Your task to perform on an android device: Check the weather Image 0: 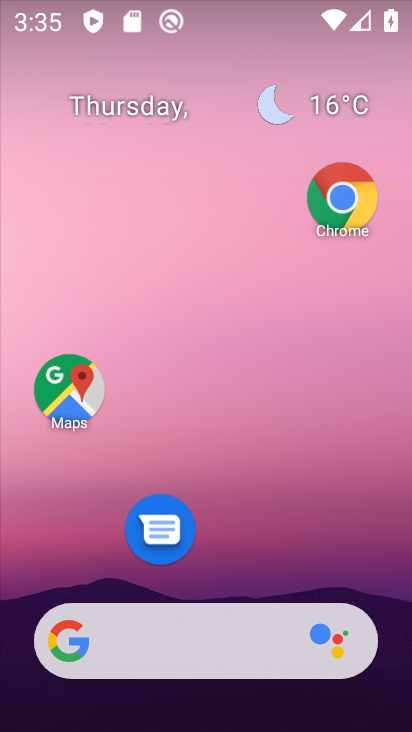
Step 0: drag from (221, 607) to (259, 415)
Your task to perform on an android device: Check the weather Image 1: 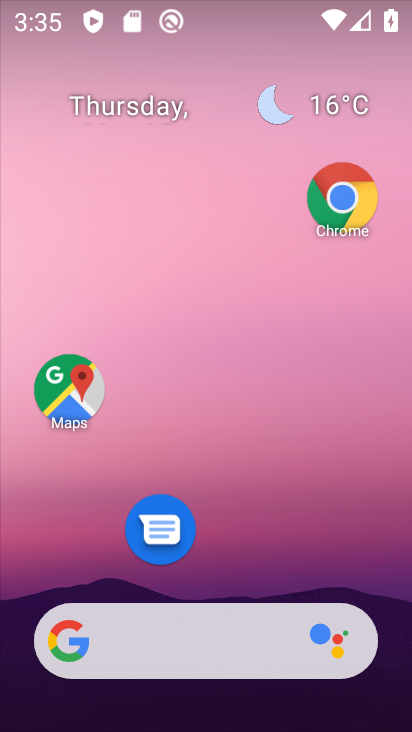
Step 1: click (234, 619)
Your task to perform on an android device: Check the weather Image 2: 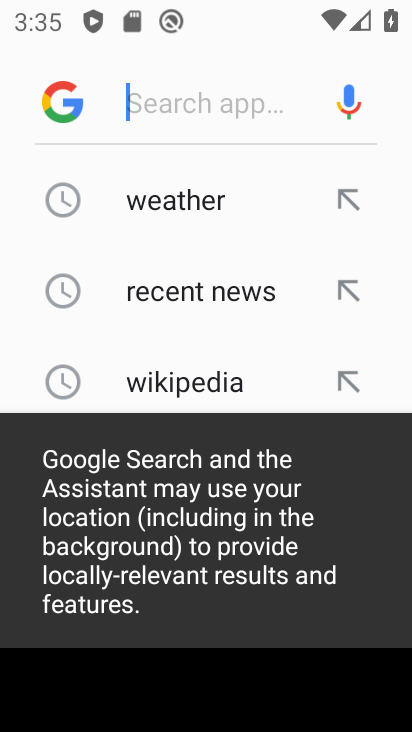
Step 2: click (203, 201)
Your task to perform on an android device: Check the weather Image 3: 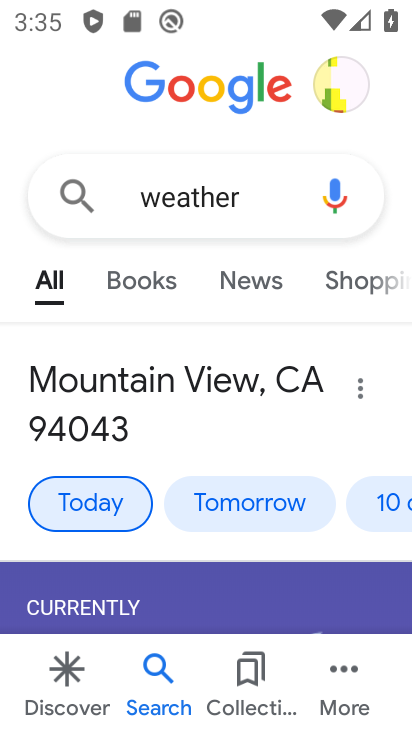
Step 3: task complete